Your task to perform on an android device: turn on translation in the chrome app Image 0: 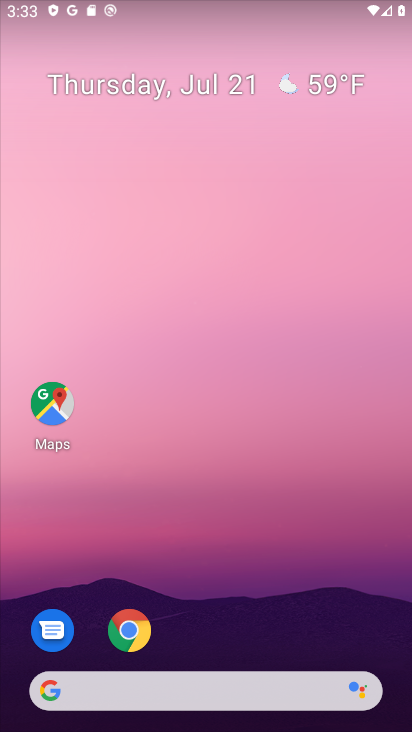
Step 0: drag from (251, 585) to (277, 40)
Your task to perform on an android device: turn on translation in the chrome app Image 1: 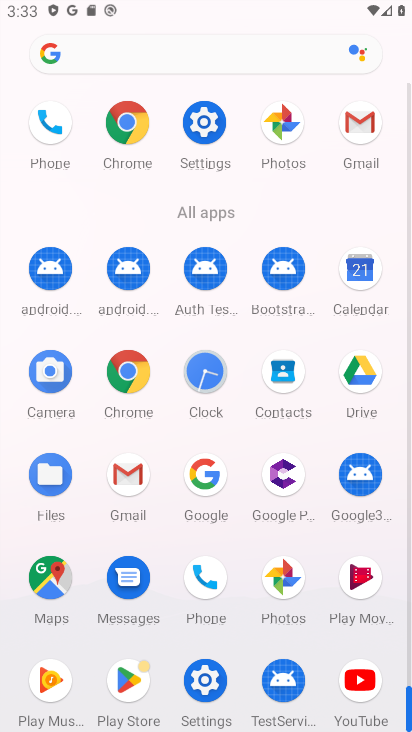
Step 1: click (128, 128)
Your task to perform on an android device: turn on translation in the chrome app Image 2: 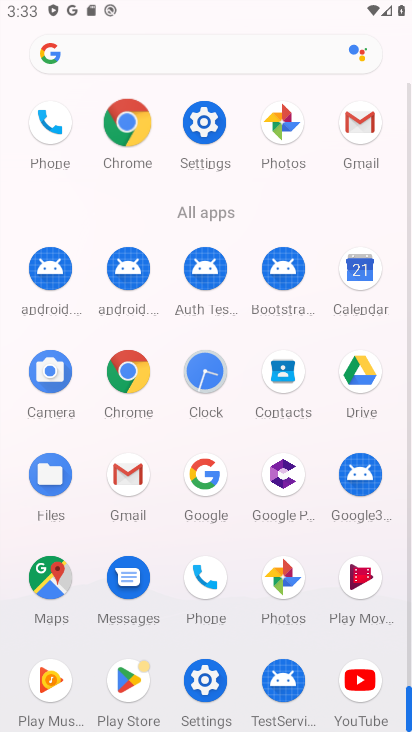
Step 2: click (124, 126)
Your task to perform on an android device: turn on translation in the chrome app Image 3: 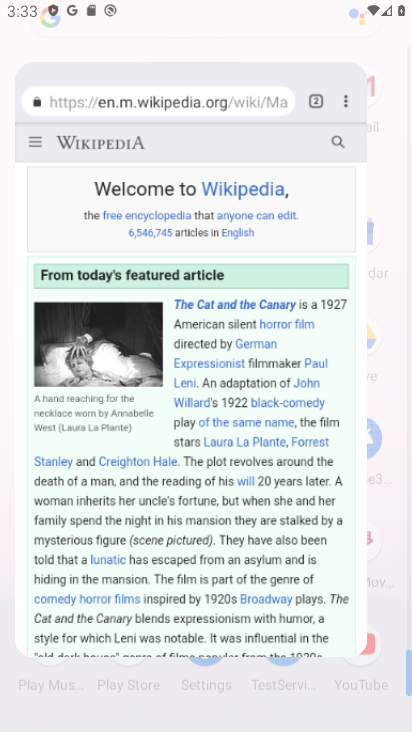
Step 3: click (140, 122)
Your task to perform on an android device: turn on translation in the chrome app Image 4: 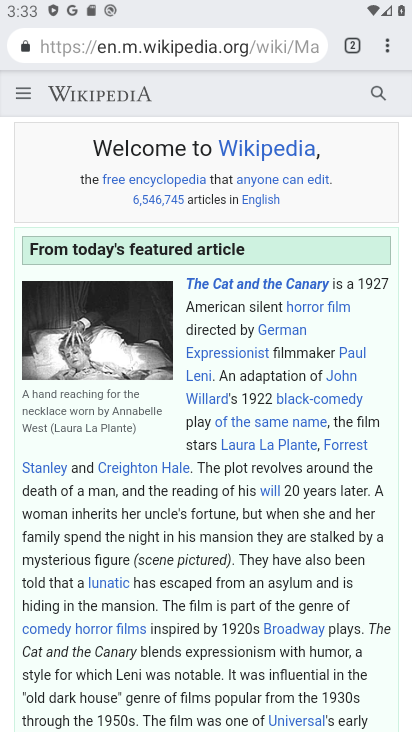
Step 4: drag from (379, 45) to (213, 547)
Your task to perform on an android device: turn on translation in the chrome app Image 5: 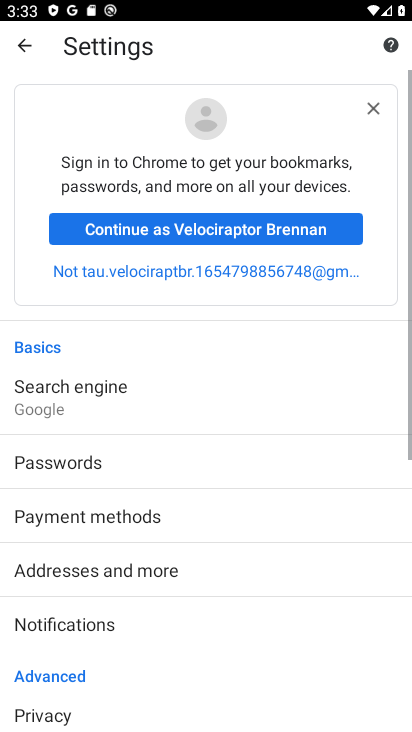
Step 5: click (213, 547)
Your task to perform on an android device: turn on translation in the chrome app Image 6: 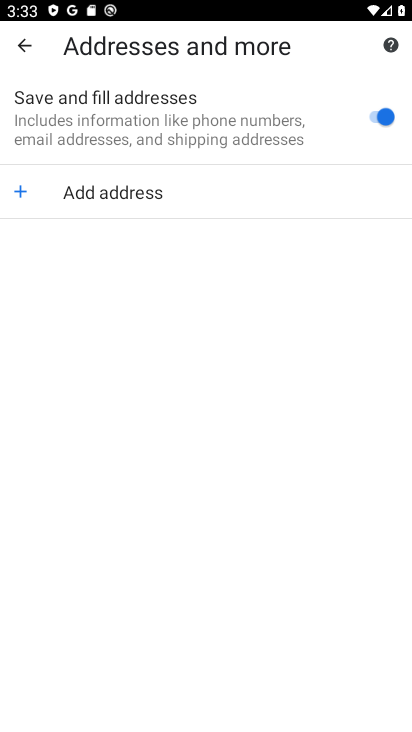
Step 6: click (33, 51)
Your task to perform on an android device: turn on translation in the chrome app Image 7: 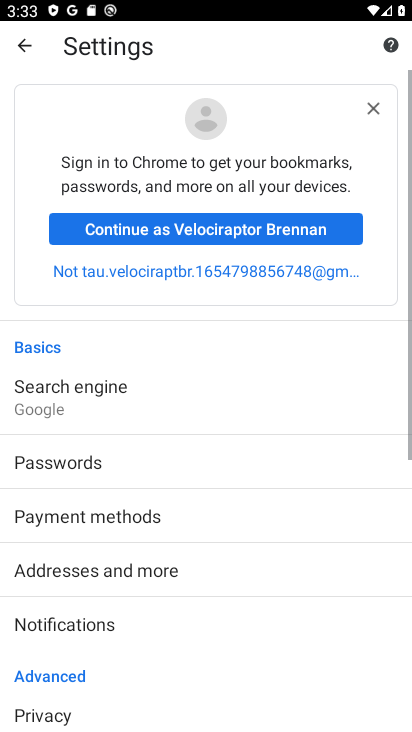
Step 7: drag from (148, 560) to (163, 132)
Your task to perform on an android device: turn on translation in the chrome app Image 8: 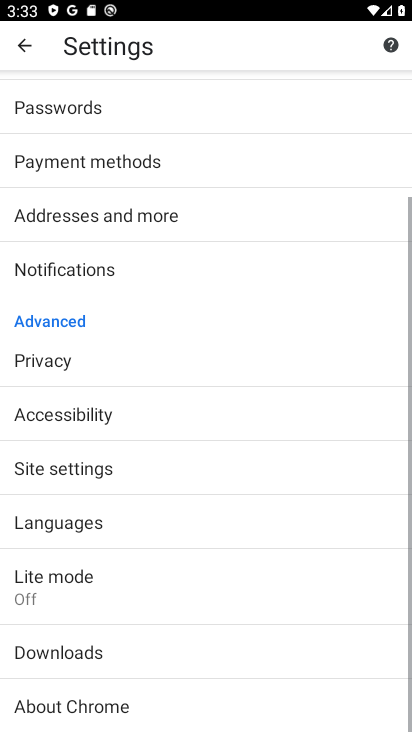
Step 8: drag from (185, 579) to (215, 302)
Your task to perform on an android device: turn on translation in the chrome app Image 9: 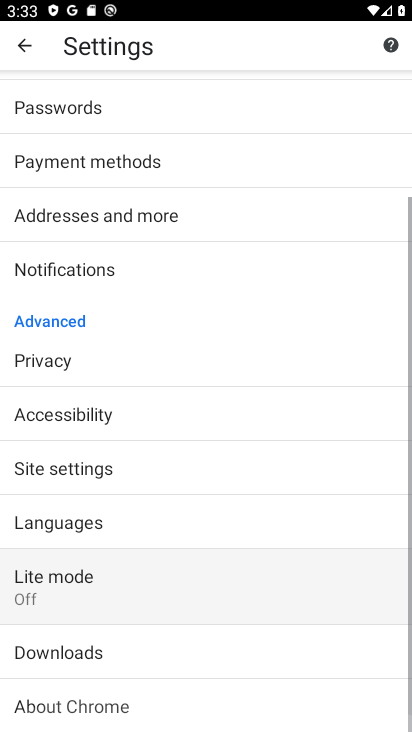
Step 9: drag from (208, 547) to (214, 229)
Your task to perform on an android device: turn on translation in the chrome app Image 10: 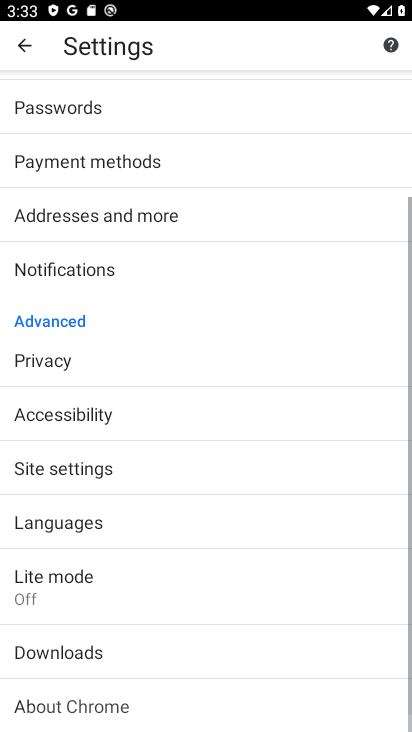
Step 10: drag from (196, 522) to (196, 201)
Your task to perform on an android device: turn on translation in the chrome app Image 11: 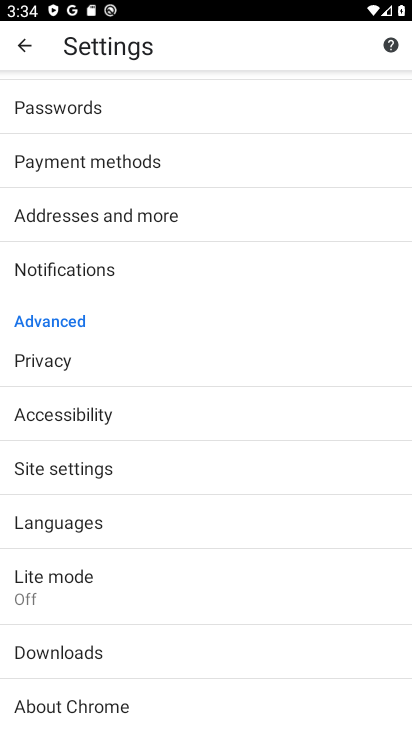
Step 11: drag from (84, 625) to (84, 296)
Your task to perform on an android device: turn on translation in the chrome app Image 12: 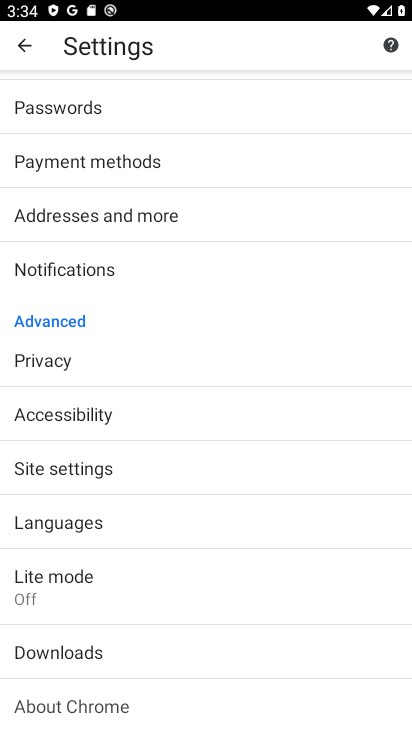
Step 12: drag from (119, 580) to (149, 434)
Your task to perform on an android device: turn on translation in the chrome app Image 13: 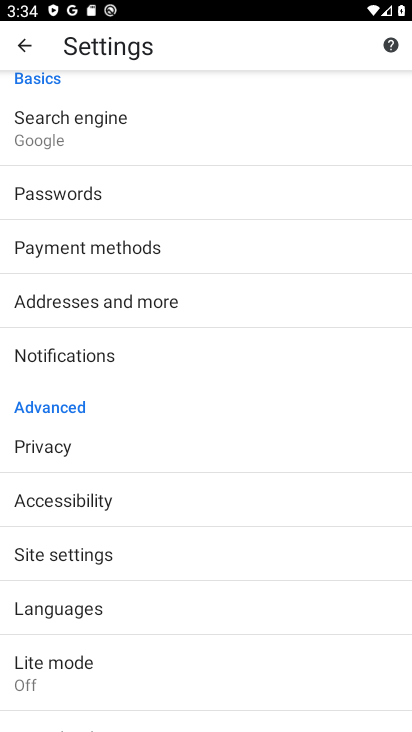
Step 13: click (104, 607)
Your task to perform on an android device: turn on translation in the chrome app Image 14: 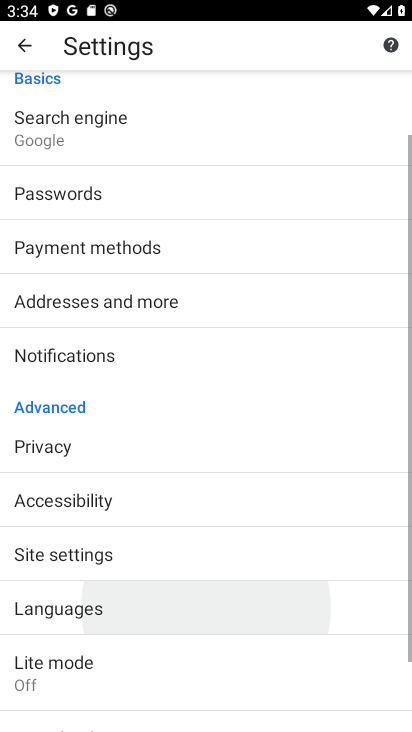
Step 14: click (113, 613)
Your task to perform on an android device: turn on translation in the chrome app Image 15: 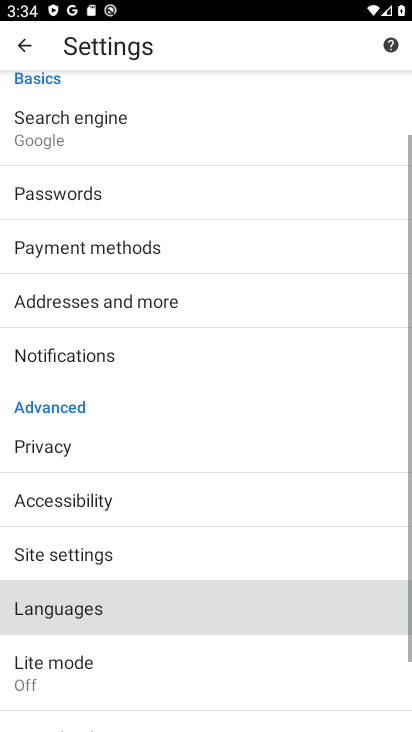
Step 15: click (116, 612)
Your task to perform on an android device: turn on translation in the chrome app Image 16: 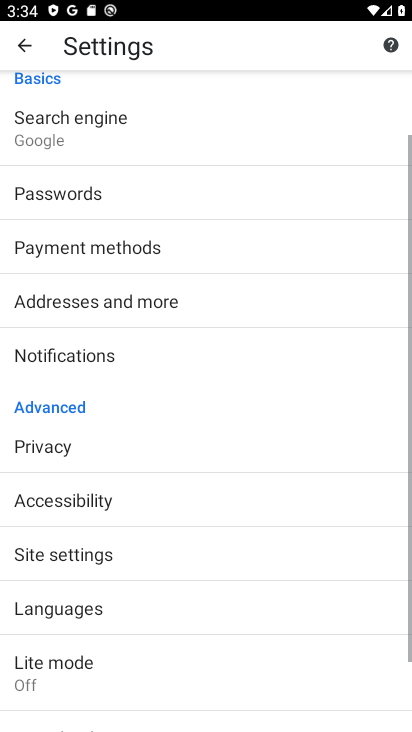
Step 16: click (116, 612)
Your task to perform on an android device: turn on translation in the chrome app Image 17: 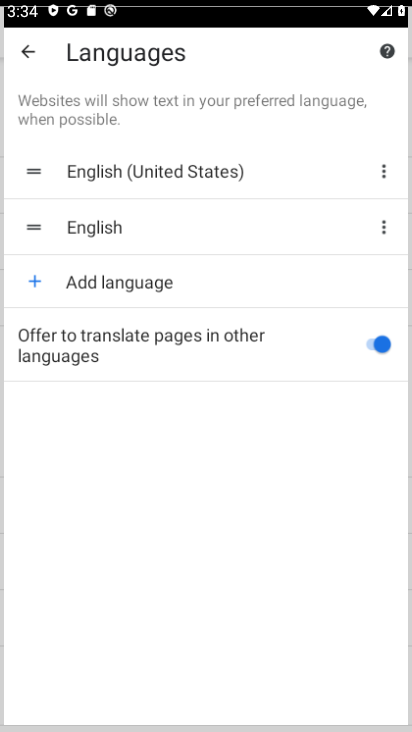
Step 17: click (116, 606)
Your task to perform on an android device: turn on translation in the chrome app Image 18: 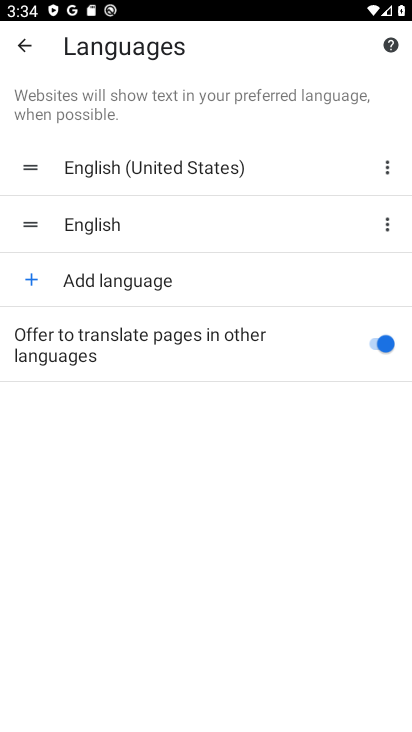
Step 18: task complete